Your task to perform on an android device: Open Google Maps and go to "Timeline" Image 0: 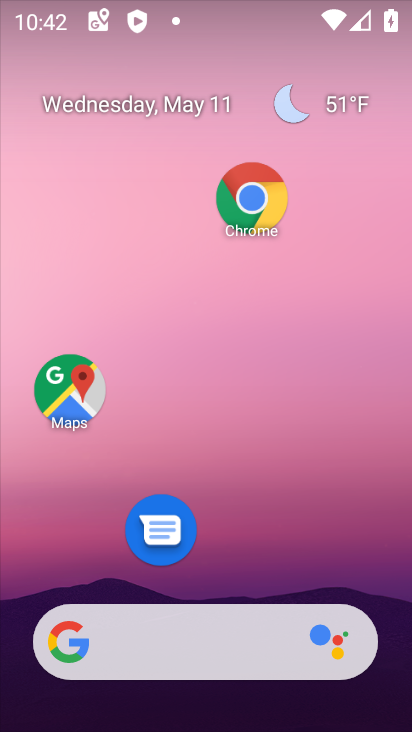
Step 0: click (85, 416)
Your task to perform on an android device: Open Google Maps and go to "Timeline" Image 1: 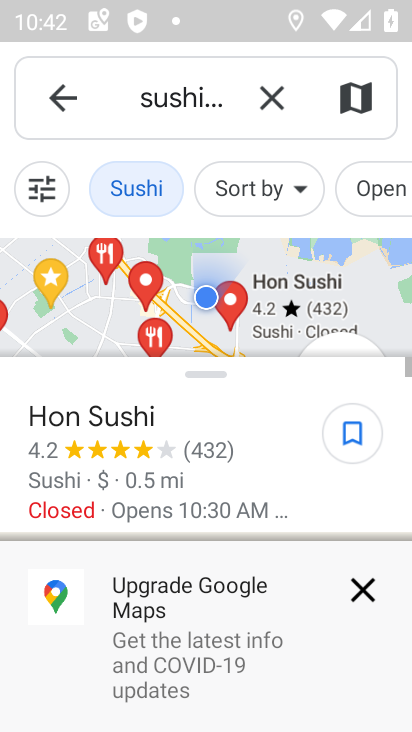
Step 1: click (258, 97)
Your task to perform on an android device: Open Google Maps and go to "Timeline" Image 2: 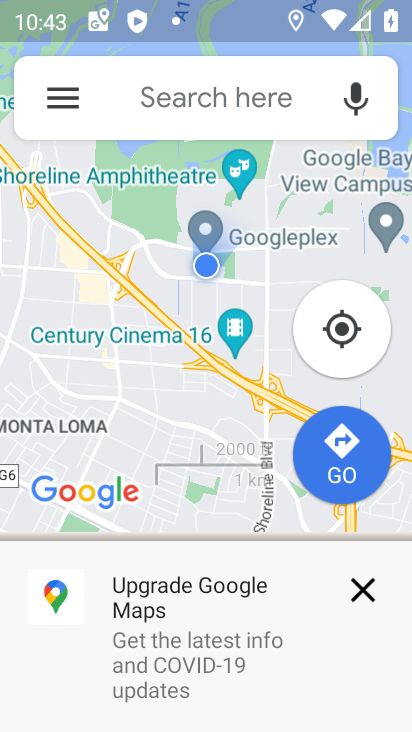
Step 2: click (54, 103)
Your task to perform on an android device: Open Google Maps and go to "Timeline" Image 3: 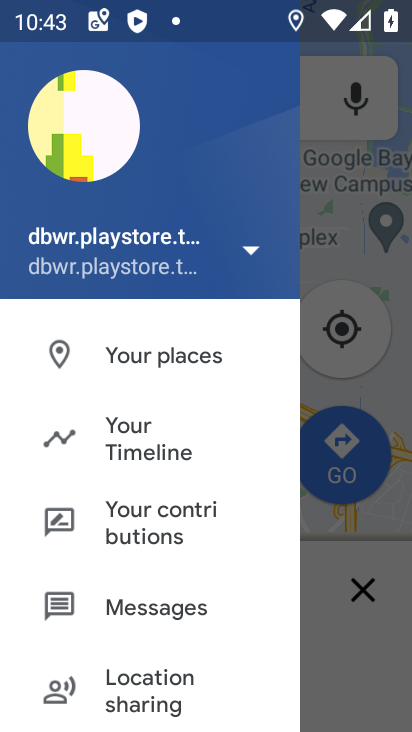
Step 3: click (126, 458)
Your task to perform on an android device: Open Google Maps and go to "Timeline" Image 4: 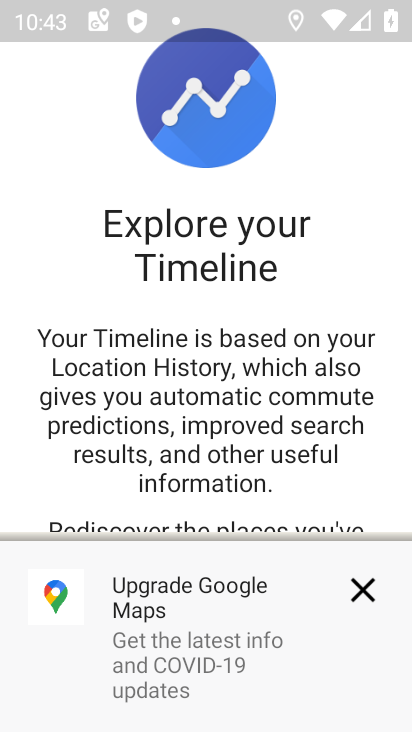
Step 4: click (366, 588)
Your task to perform on an android device: Open Google Maps and go to "Timeline" Image 5: 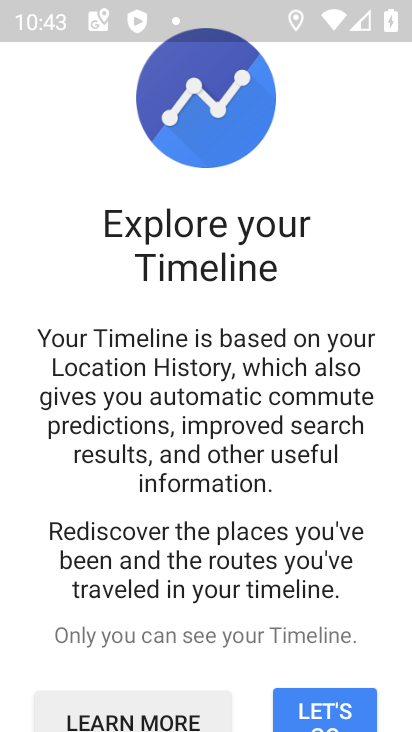
Step 5: drag from (247, 668) to (250, 479)
Your task to perform on an android device: Open Google Maps and go to "Timeline" Image 6: 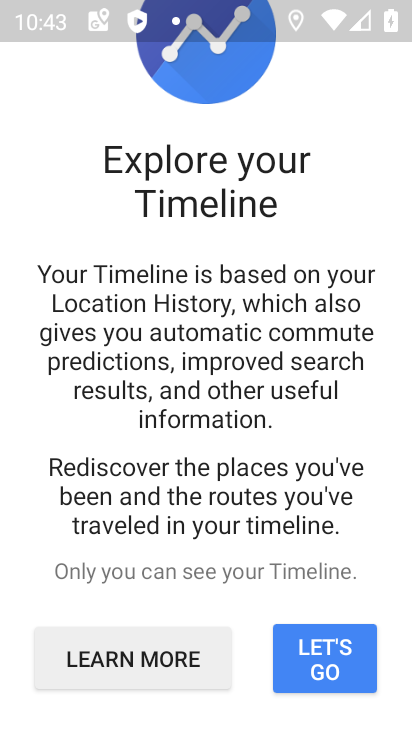
Step 6: click (319, 656)
Your task to perform on an android device: Open Google Maps and go to "Timeline" Image 7: 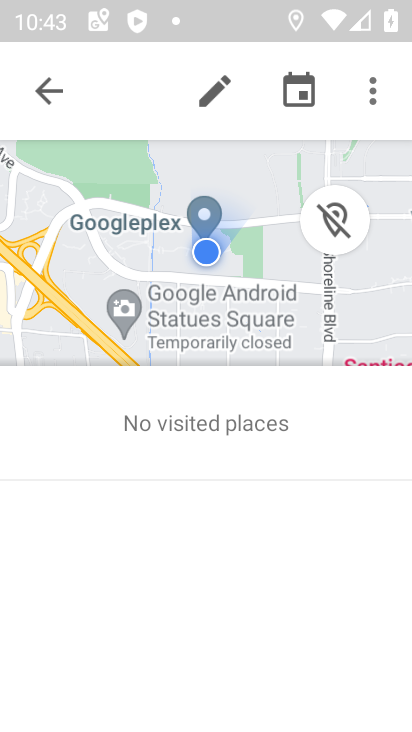
Step 7: task complete